Your task to perform on an android device: Search for hotels in San Diego Image 0: 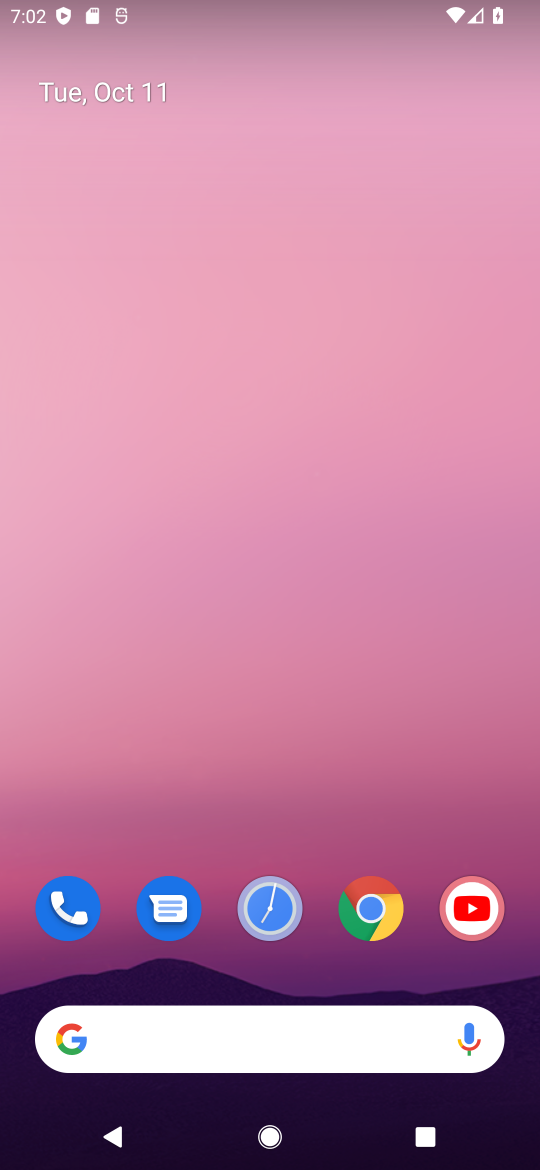
Step 0: click (267, 1021)
Your task to perform on an android device: Search for hotels in San Diego Image 1: 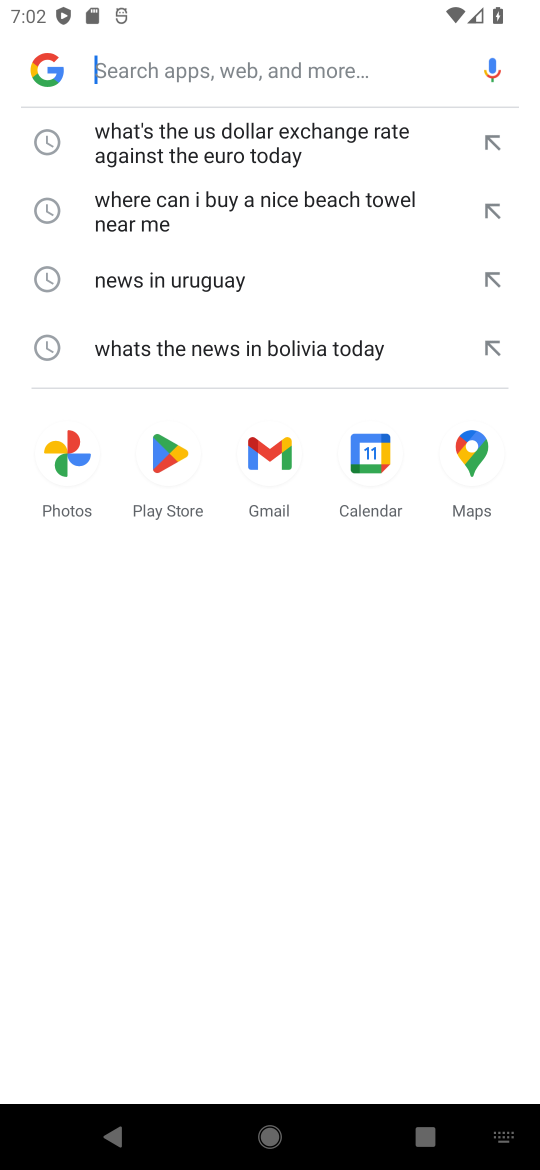
Step 1: type "Search for hotels in San Diego"
Your task to perform on an android device: Search for hotels in San Diego Image 2: 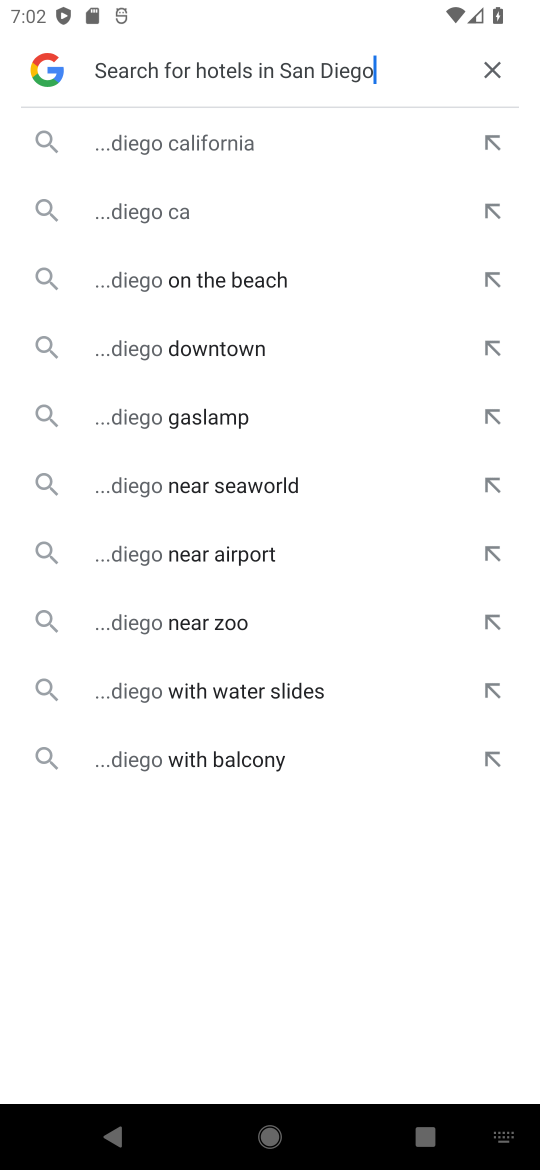
Step 2: click (145, 199)
Your task to perform on an android device: Search for hotels in San Diego Image 3: 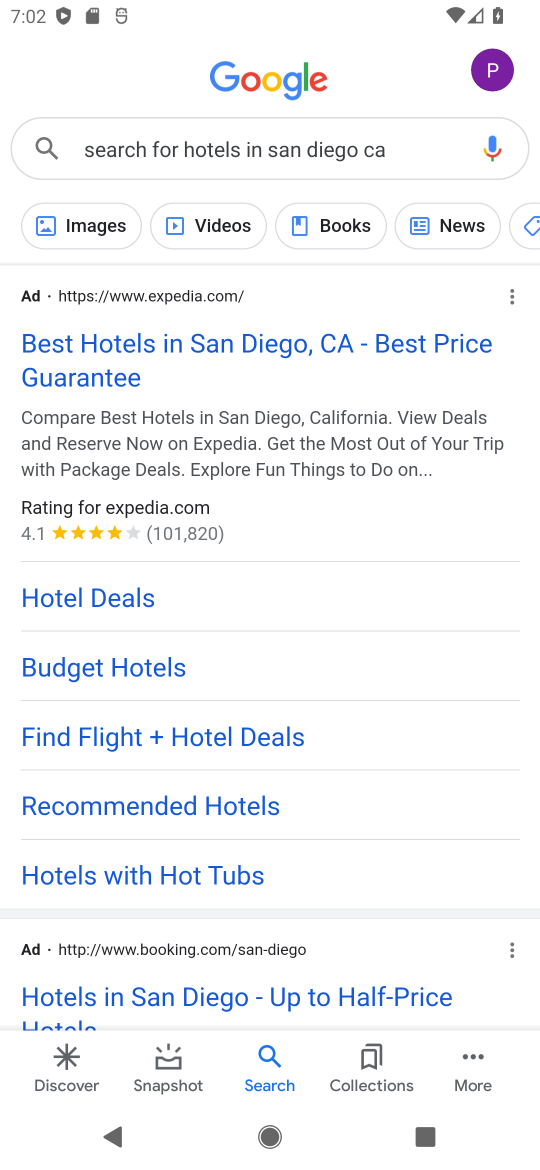
Step 3: click (69, 350)
Your task to perform on an android device: Search for hotels in San Diego Image 4: 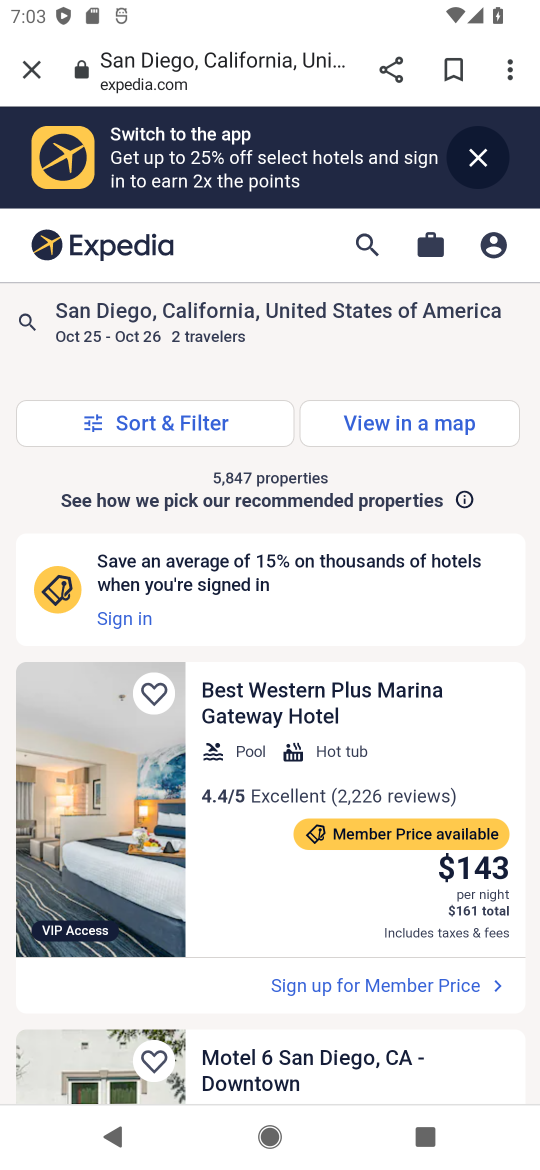
Step 4: task complete